Your task to perform on an android device: clear history in the chrome app Image 0: 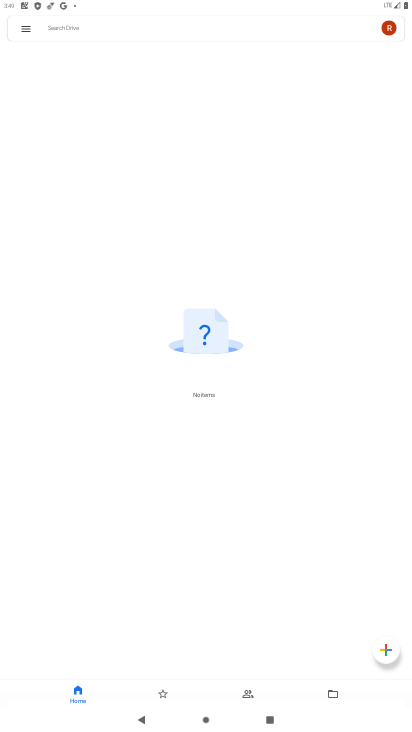
Step 0: press home button
Your task to perform on an android device: clear history in the chrome app Image 1: 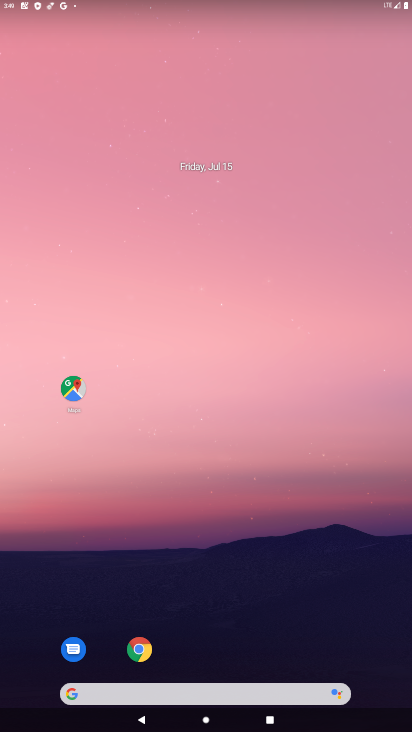
Step 1: click (140, 646)
Your task to perform on an android device: clear history in the chrome app Image 2: 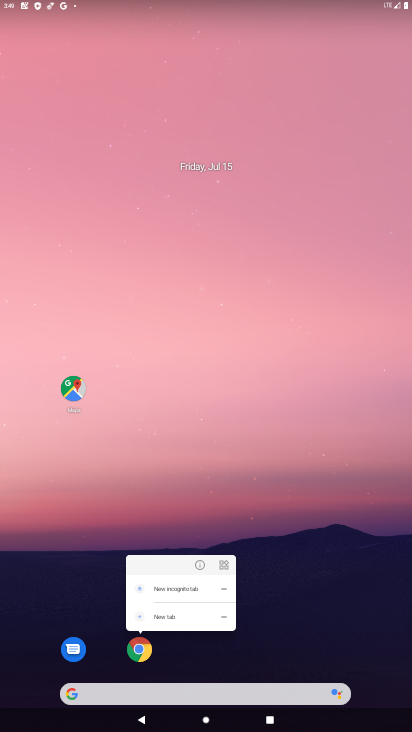
Step 2: click (143, 661)
Your task to perform on an android device: clear history in the chrome app Image 3: 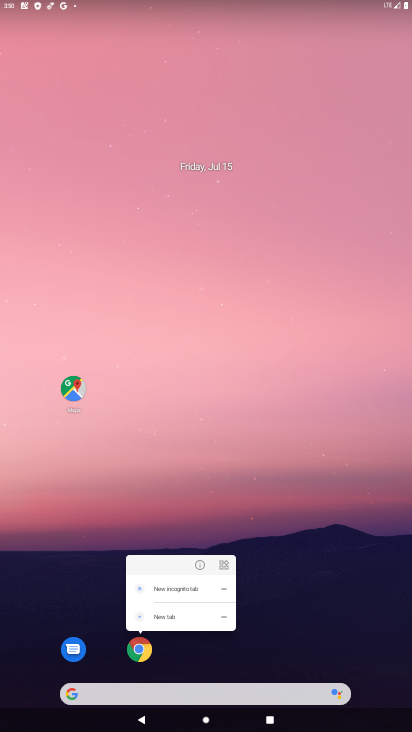
Step 3: click (136, 652)
Your task to perform on an android device: clear history in the chrome app Image 4: 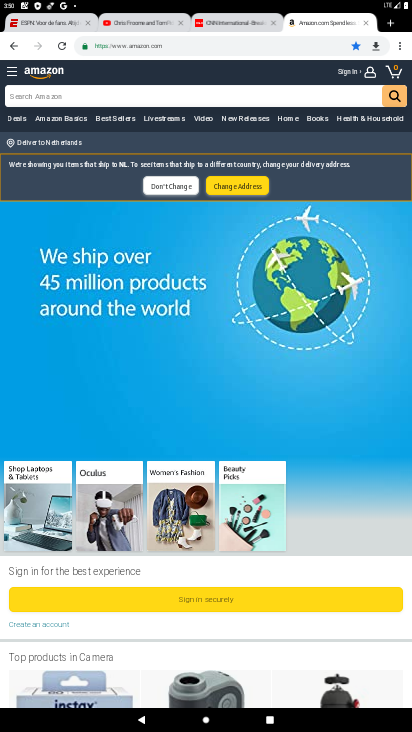
Step 4: click (404, 50)
Your task to perform on an android device: clear history in the chrome app Image 5: 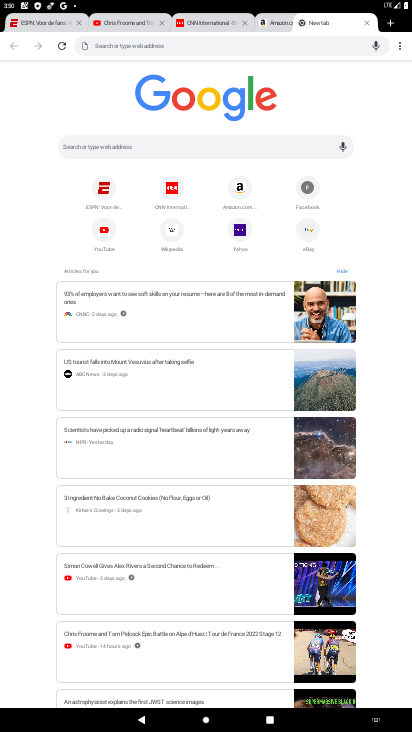
Step 5: drag from (404, 50) to (323, 129)
Your task to perform on an android device: clear history in the chrome app Image 6: 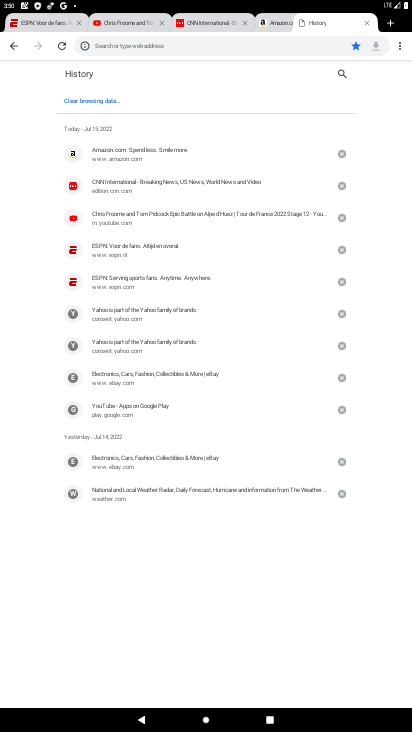
Step 6: click (102, 105)
Your task to perform on an android device: clear history in the chrome app Image 7: 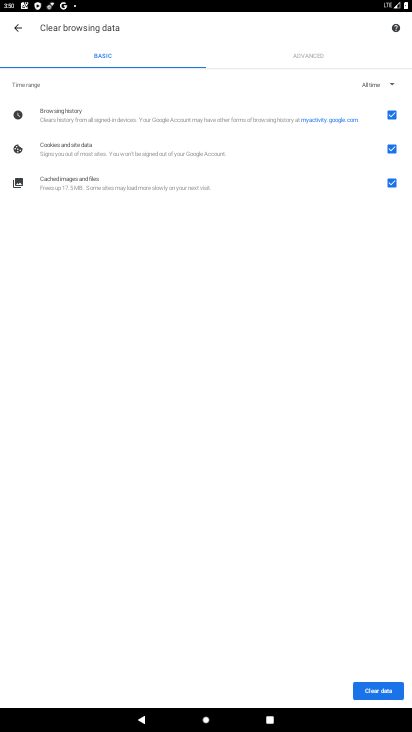
Step 7: click (384, 687)
Your task to perform on an android device: clear history in the chrome app Image 8: 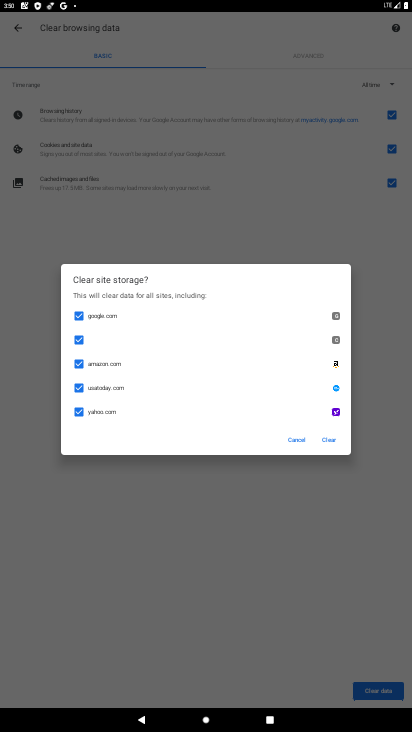
Step 8: click (335, 441)
Your task to perform on an android device: clear history in the chrome app Image 9: 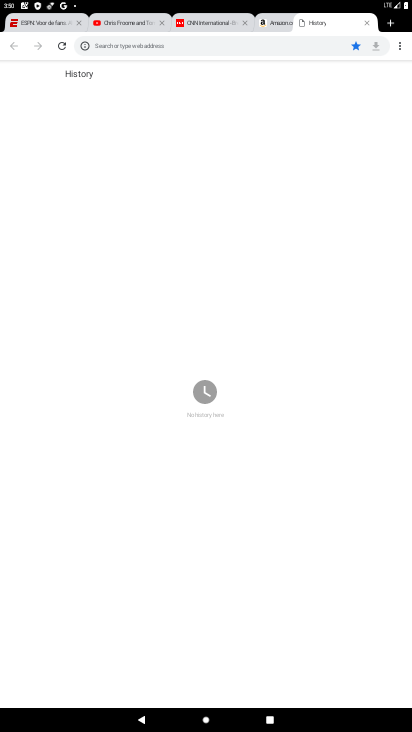
Step 9: task complete